Your task to perform on an android device: Open Youtube and go to the subscriptions tab Image 0: 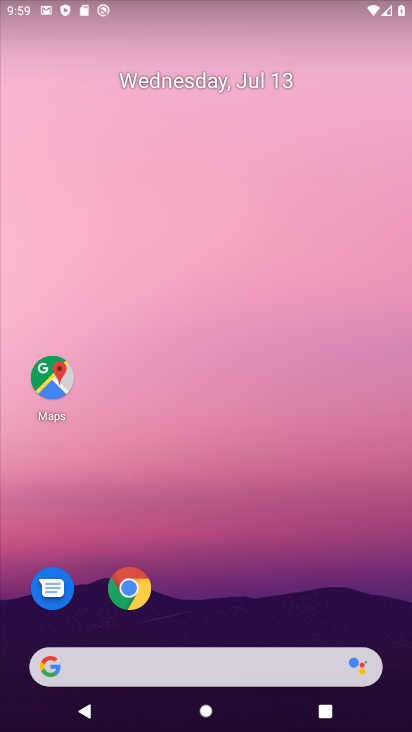
Step 0: drag from (201, 607) to (191, 118)
Your task to perform on an android device: Open Youtube and go to the subscriptions tab Image 1: 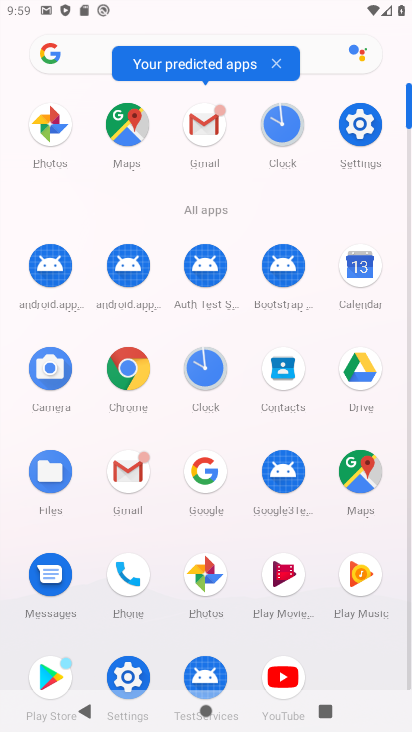
Step 1: click (285, 674)
Your task to perform on an android device: Open Youtube and go to the subscriptions tab Image 2: 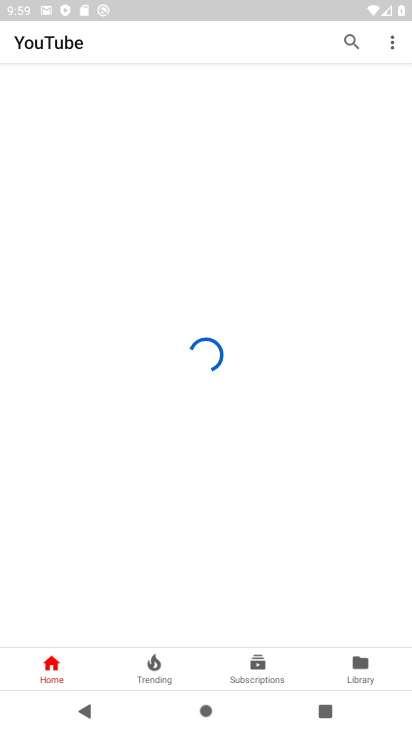
Step 2: click (263, 670)
Your task to perform on an android device: Open Youtube and go to the subscriptions tab Image 3: 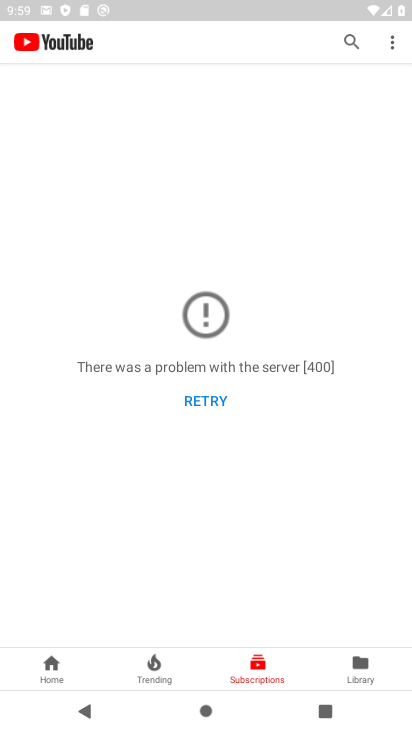
Step 3: click (259, 666)
Your task to perform on an android device: Open Youtube and go to the subscriptions tab Image 4: 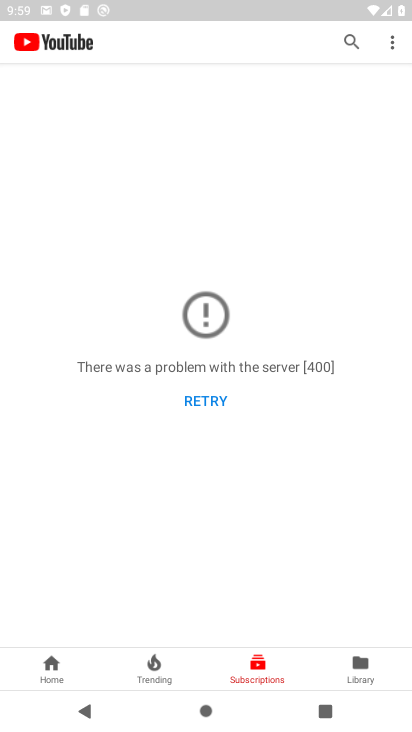
Step 4: task complete